Your task to perform on an android device: Go to Maps Image 0: 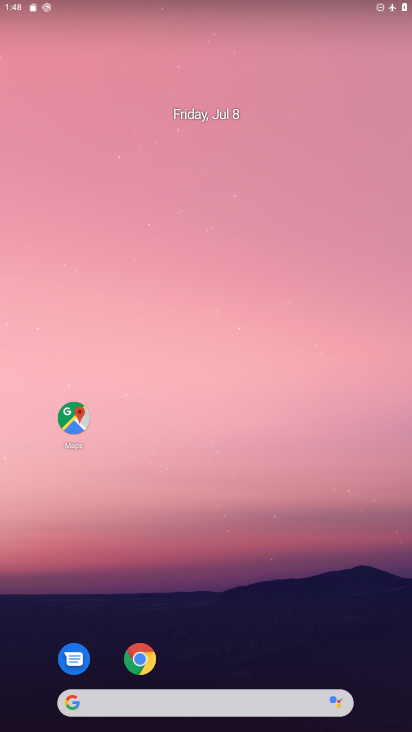
Step 0: click (72, 420)
Your task to perform on an android device: Go to Maps Image 1: 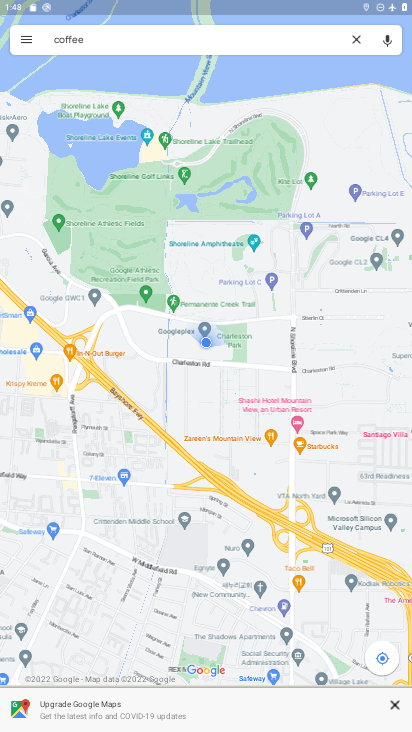
Step 1: click (355, 45)
Your task to perform on an android device: Go to Maps Image 2: 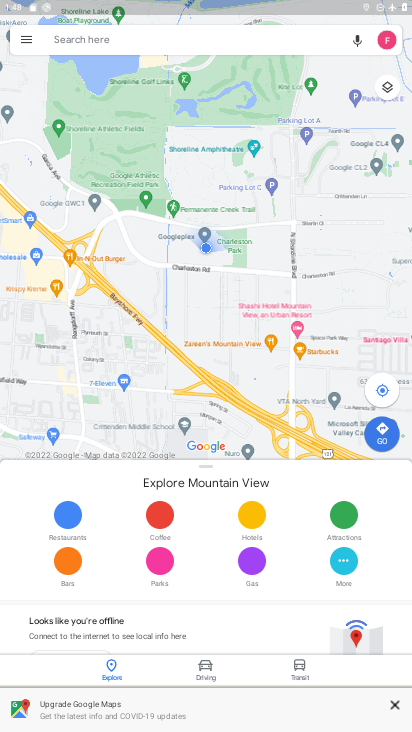
Step 2: task complete